Your task to perform on an android device: change the clock display to analog Image 0: 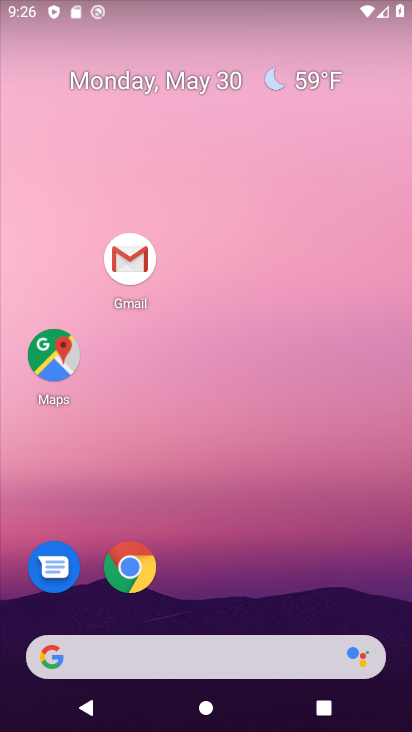
Step 0: drag from (289, 609) to (297, 90)
Your task to perform on an android device: change the clock display to analog Image 1: 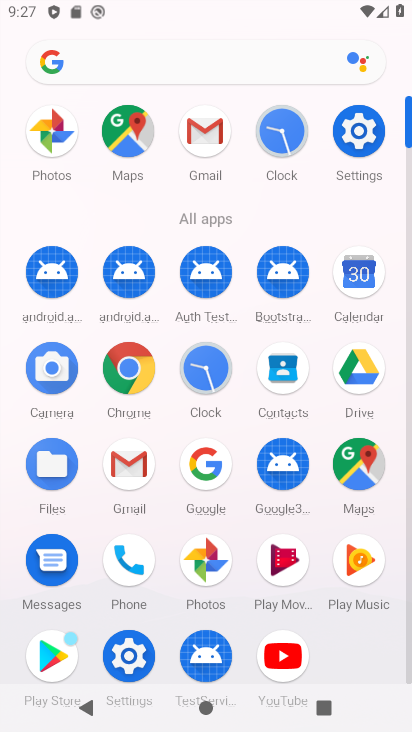
Step 1: drag from (289, 135) to (85, 256)
Your task to perform on an android device: change the clock display to analog Image 2: 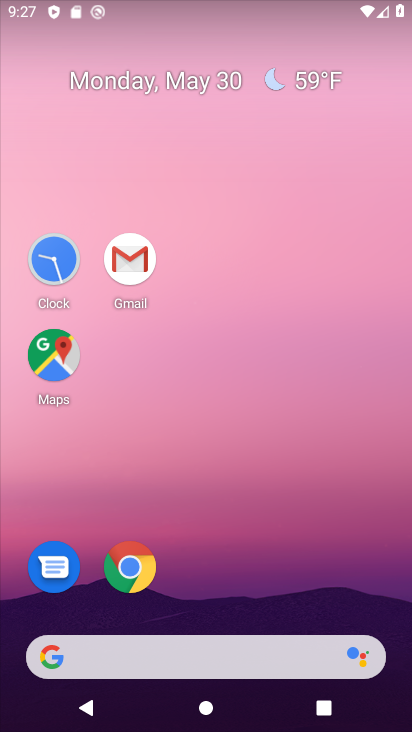
Step 2: click (69, 253)
Your task to perform on an android device: change the clock display to analog Image 3: 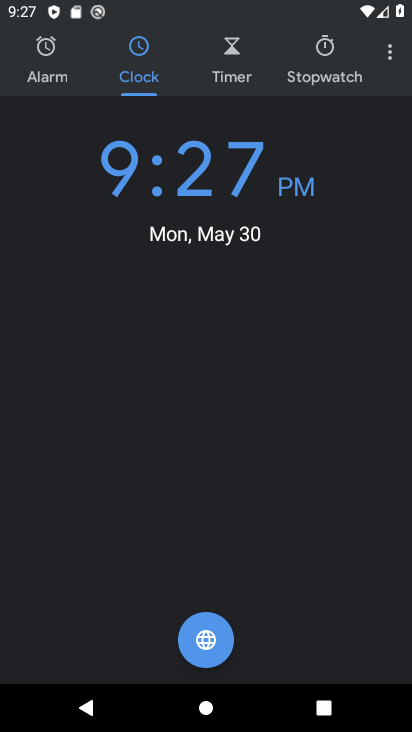
Step 3: click (387, 51)
Your task to perform on an android device: change the clock display to analog Image 4: 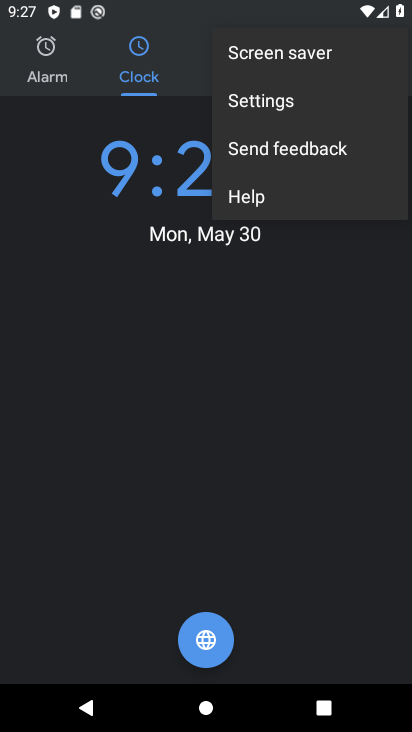
Step 4: click (306, 100)
Your task to perform on an android device: change the clock display to analog Image 5: 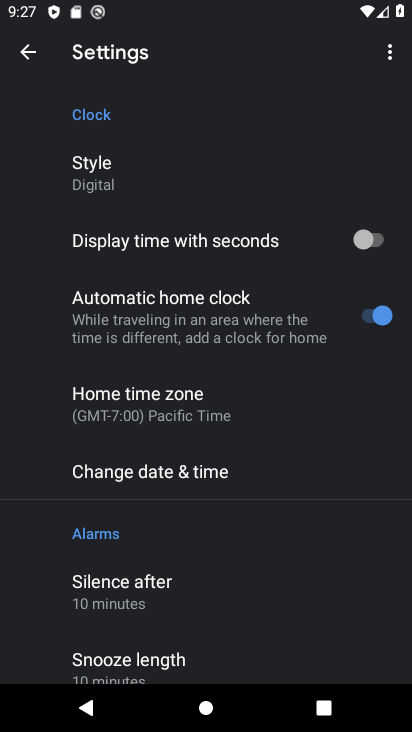
Step 5: click (108, 179)
Your task to perform on an android device: change the clock display to analog Image 6: 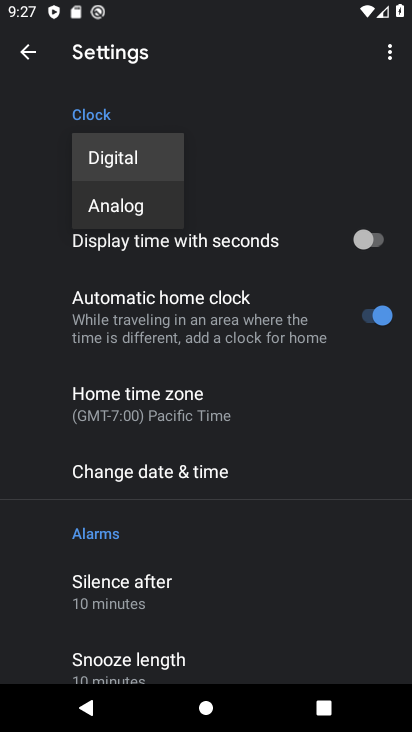
Step 6: click (139, 216)
Your task to perform on an android device: change the clock display to analog Image 7: 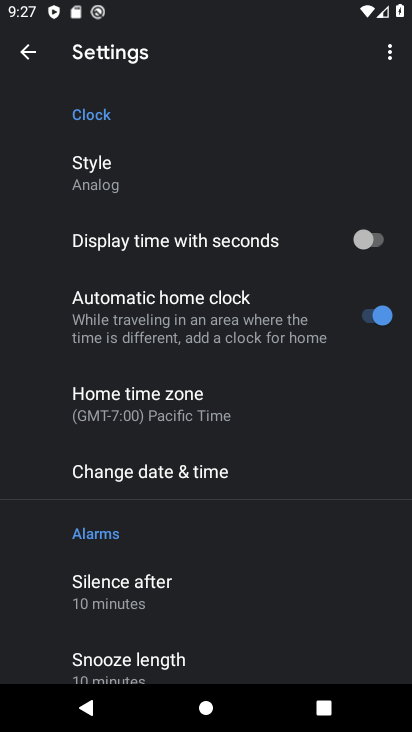
Step 7: task complete